Your task to perform on an android device: Open Google Image 0: 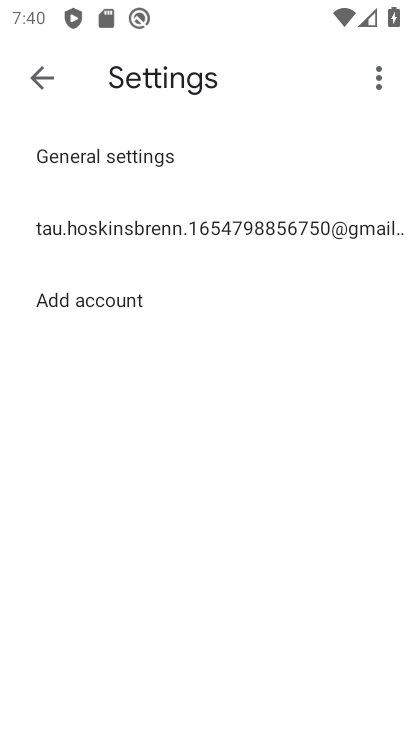
Step 0: press back button
Your task to perform on an android device: Open Google Image 1: 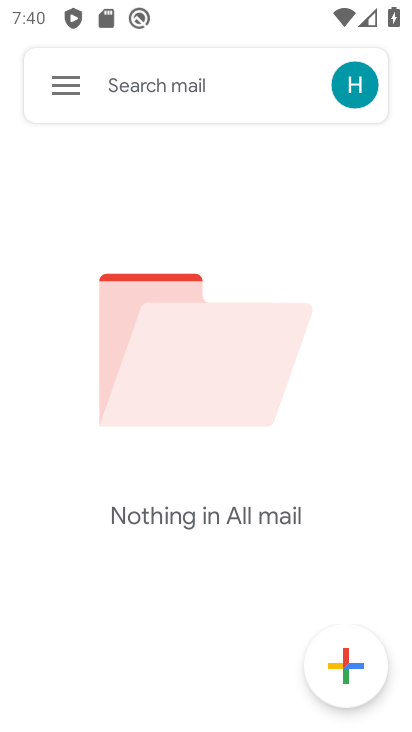
Step 1: press back button
Your task to perform on an android device: Open Google Image 2: 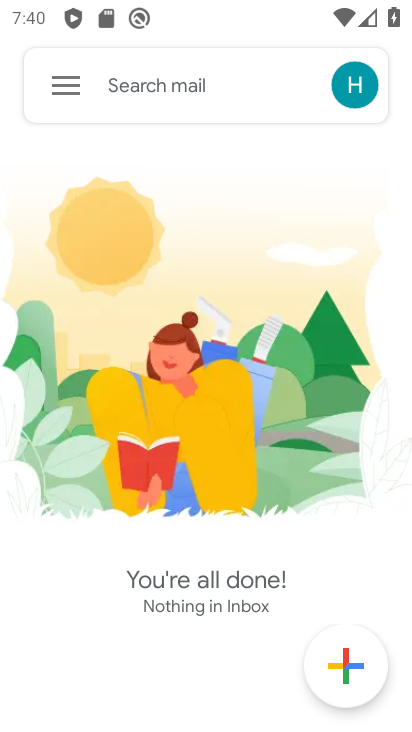
Step 2: press back button
Your task to perform on an android device: Open Google Image 3: 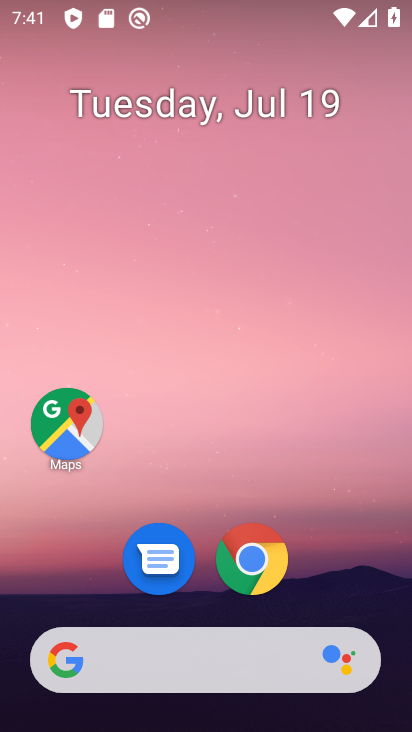
Step 3: click (105, 651)
Your task to perform on an android device: Open Google Image 4: 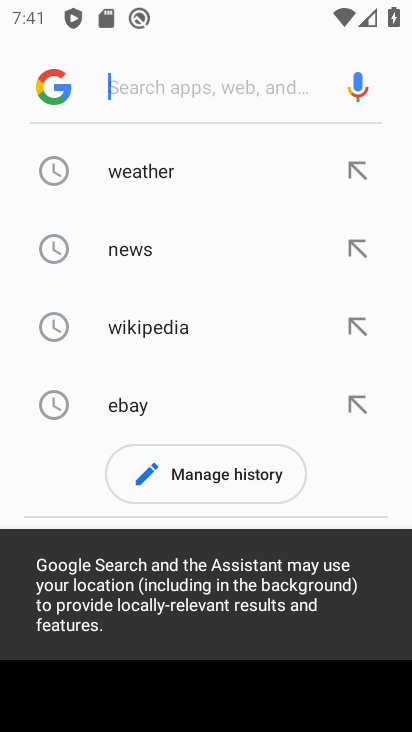
Step 4: click (49, 91)
Your task to perform on an android device: Open Google Image 5: 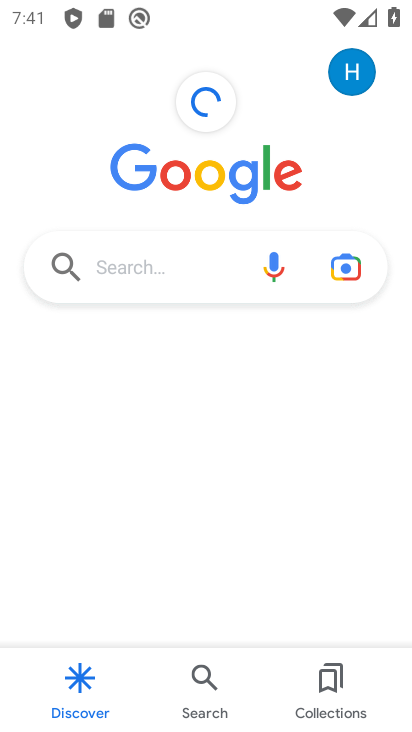
Step 5: task complete